Your task to perform on an android device: Open Chrome and go to the settings page Image 0: 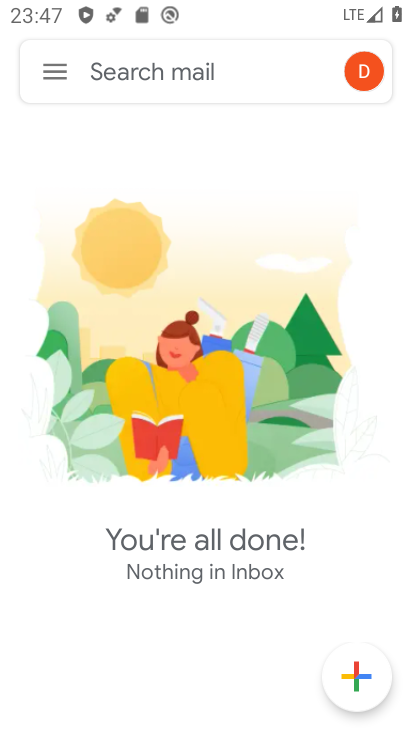
Step 0: press home button
Your task to perform on an android device: Open Chrome and go to the settings page Image 1: 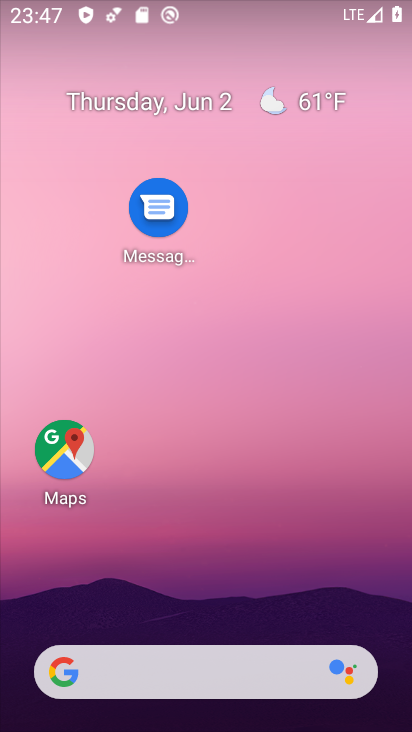
Step 1: drag from (205, 628) to (374, 43)
Your task to perform on an android device: Open Chrome and go to the settings page Image 2: 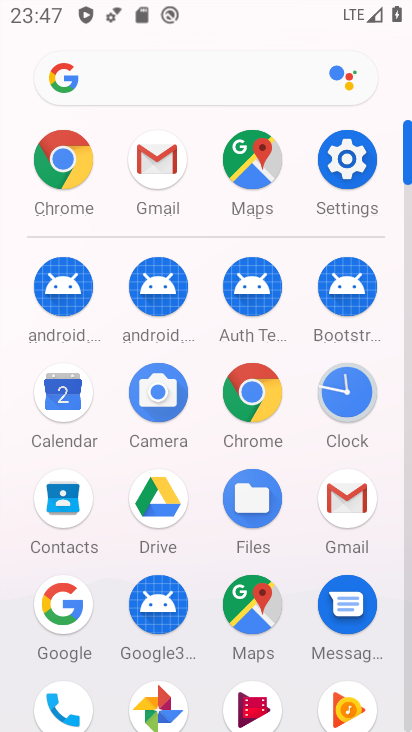
Step 2: click (260, 388)
Your task to perform on an android device: Open Chrome and go to the settings page Image 3: 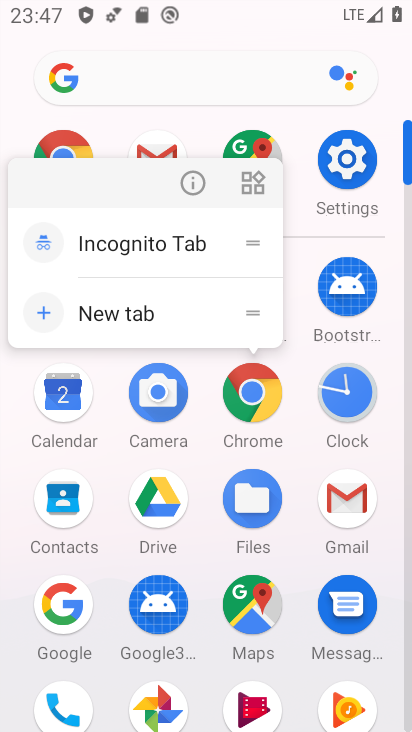
Step 3: click (265, 394)
Your task to perform on an android device: Open Chrome and go to the settings page Image 4: 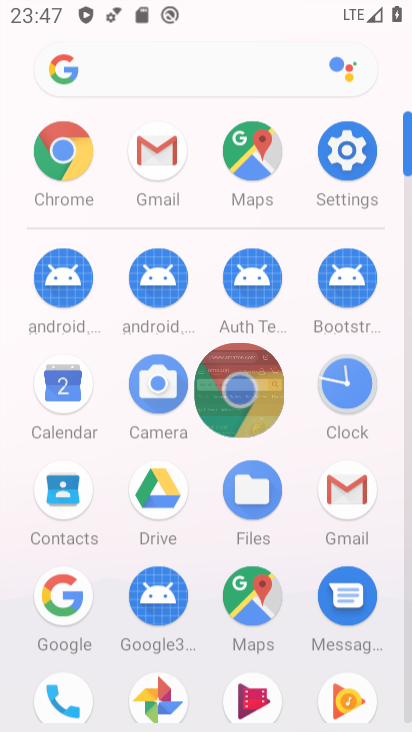
Step 4: click (251, 405)
Your task to perform on an android device: Open Chrome and go to the settings page Image 5: 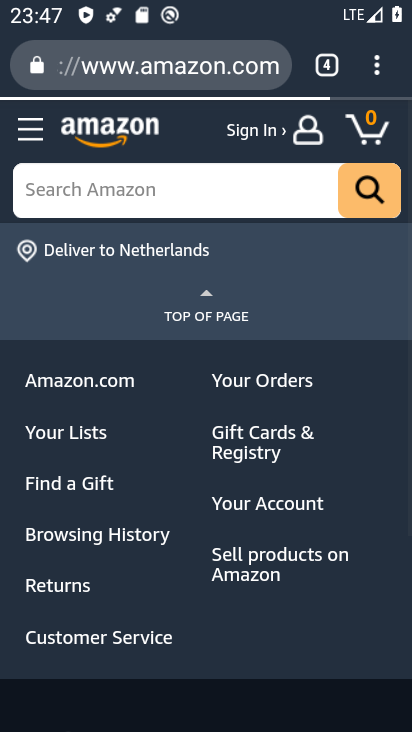
Step 5: click (380, 58)
Your task to perform on an android device: Open Chrome and go to the settings page Image 6: 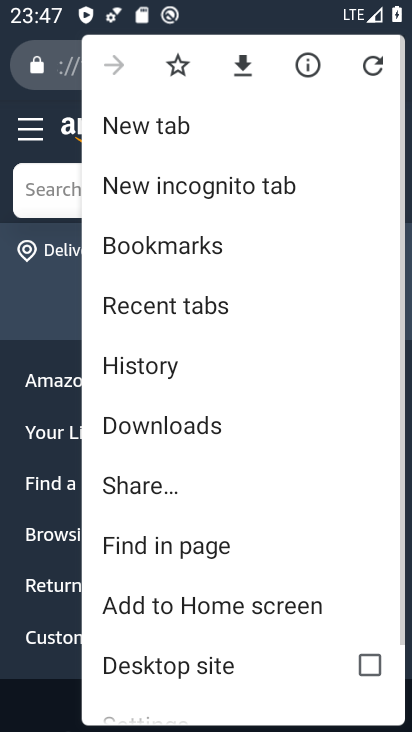
Step 6: drag from (247, 559) to (203, 44)
Your task to perform on an android device: Open Chrome and go to the settings page Image 7: 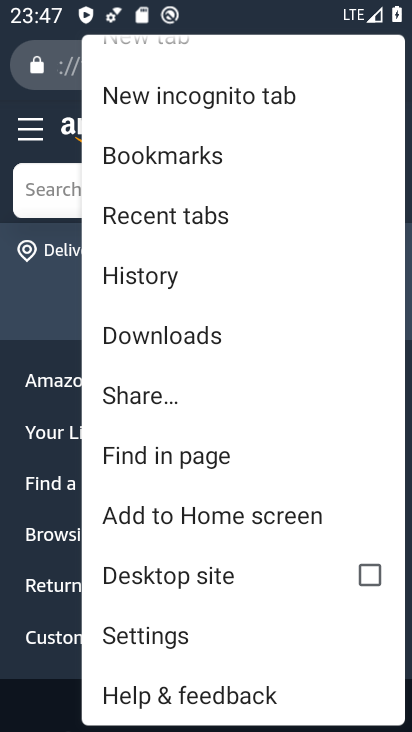
Step 7: click (177, 632)
Your task to perform on an android device: Open Chrome and go to the settings page Image 8: 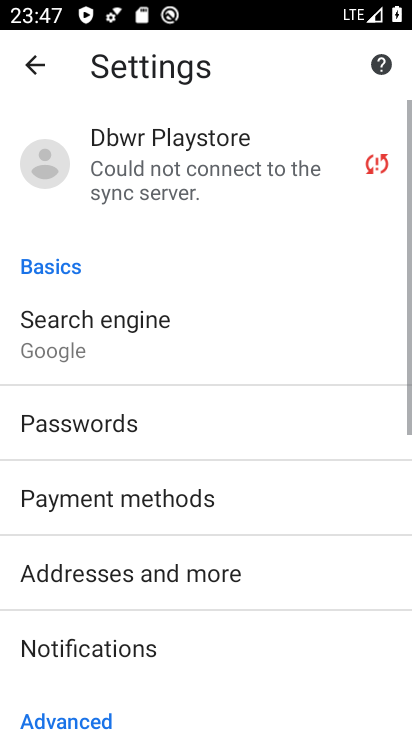
Step 8: task complete